Your task to perform on an android device: Open the phone app and click the voicemail tab. Image 0: 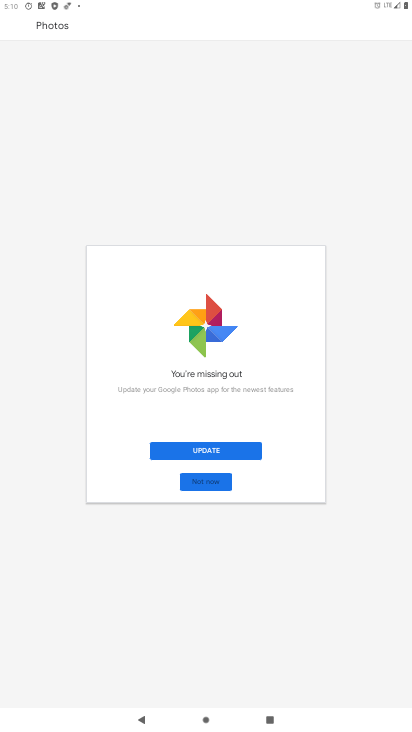
Step 0: press home button
Your task to perform on an android device: Open the phone app and click the voicemail tab. Image 1: 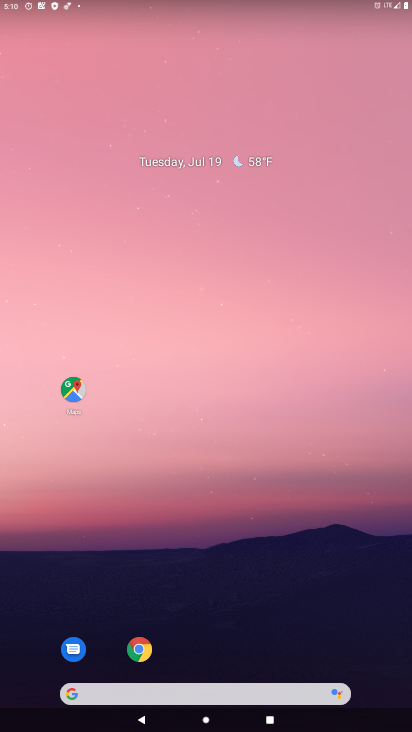
Step 1: drag from (229, 463) to (292, 110)
Your task to perform on an android device: Open the phone app and click the voicemail tab. Image 2: 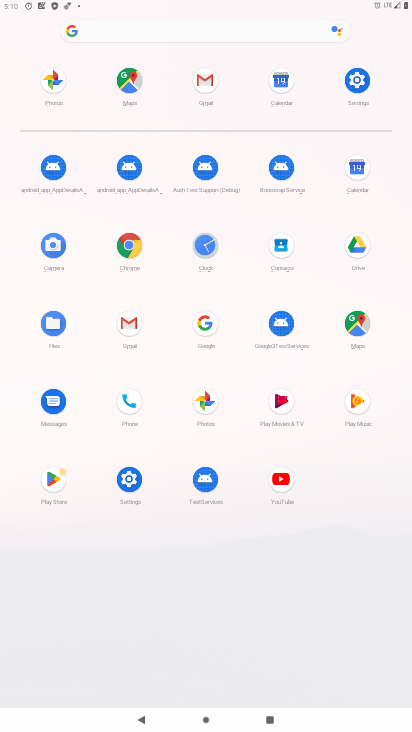
Step 2: click (131, 401)
Your task to perform on an android device: Open the phone app and click the voicemail tab. Image 3: 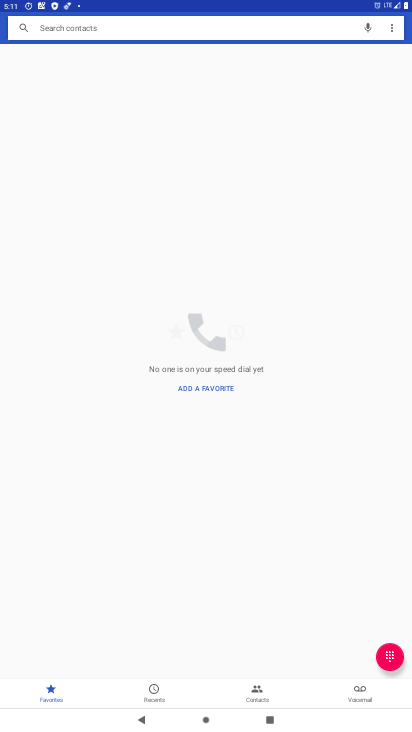
Step 3: click (370, 695)
Your task to perform on an android device: Open the phone app and click the voicemail tab. Image 4: 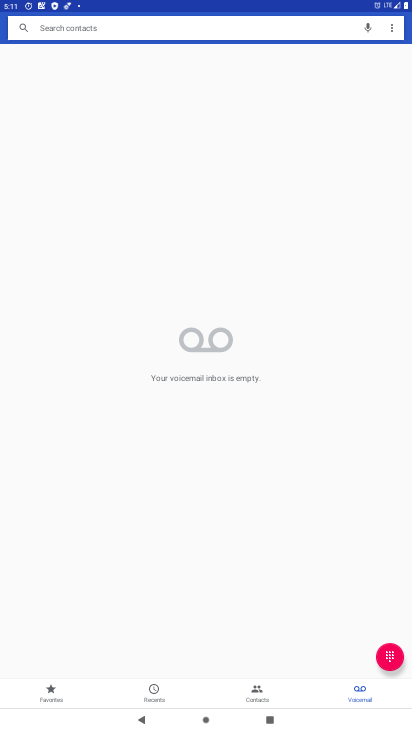
Step 4: task complete